Your task to perform on an android device: Open calendar and show me the second week of next month Image 0: 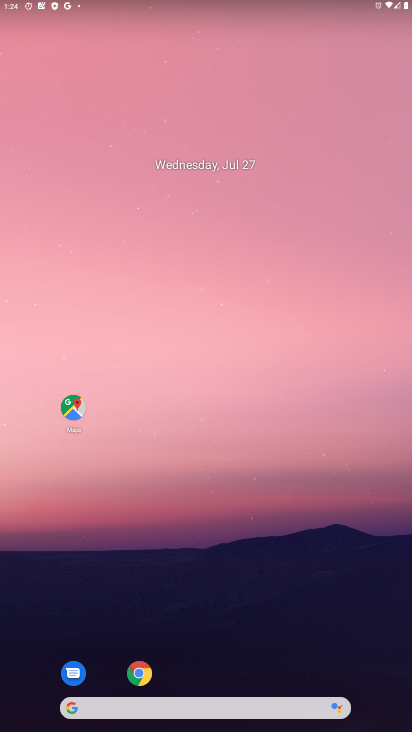
Step 0: drag from (265, 693) to (294, 82)
Your task to perform on an android device: Open calendar and show me the second week of next month Image 1: 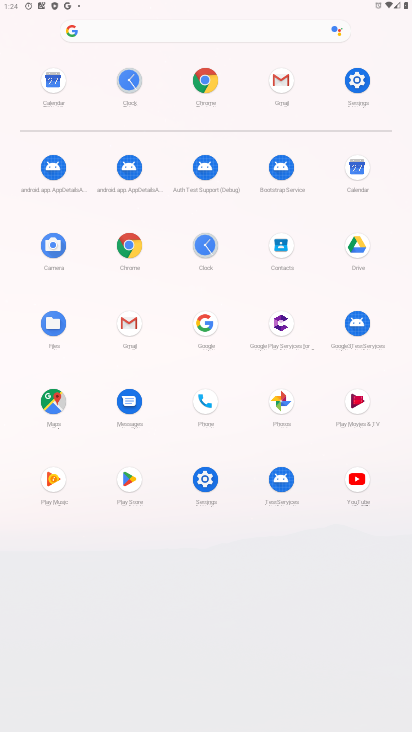
Step 1: click (362, 162)
Your task to perform on an android device: Open calendar and show me the second week of next month Image 2: 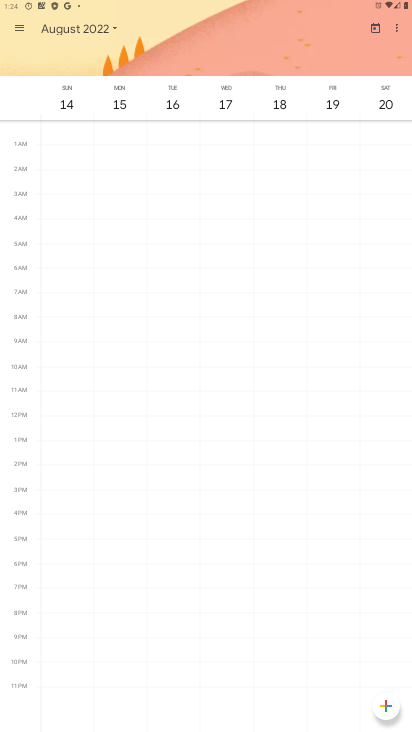
Step 2: task complete